Your task to perform on an android device: Open wifi settings Image 0: 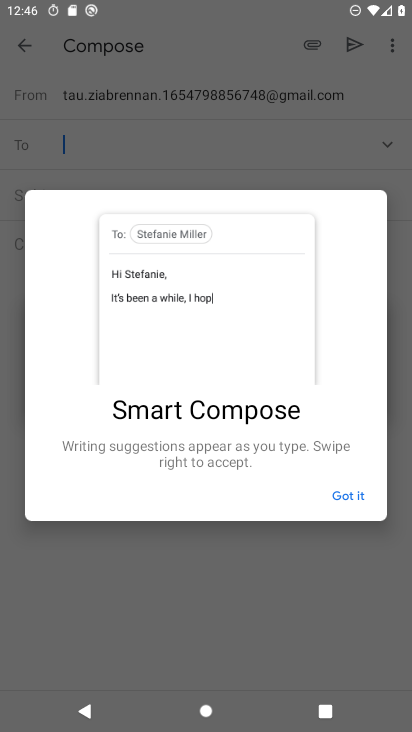
Step 0: press home button
Your task to perform on an android device: Open wifi settings Image 1: 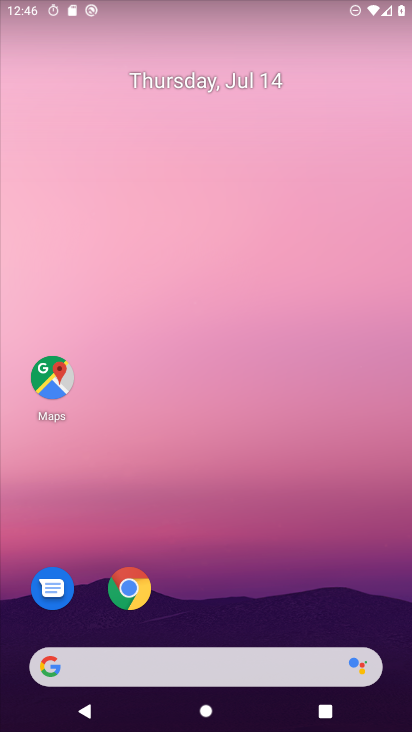
Step 1: drag from (178, 673) to (237, 96)
Your task to perform on an android device: Open wifi settings Image 2: 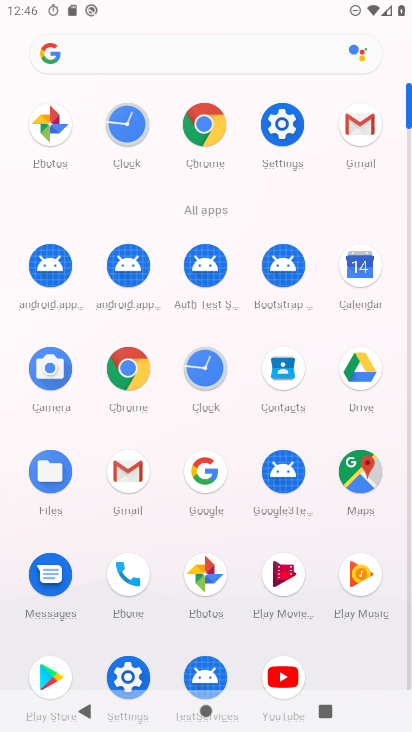
Step 2: click (273, 122)
Your task to perform on an android device: Open wifi settings Image 3: 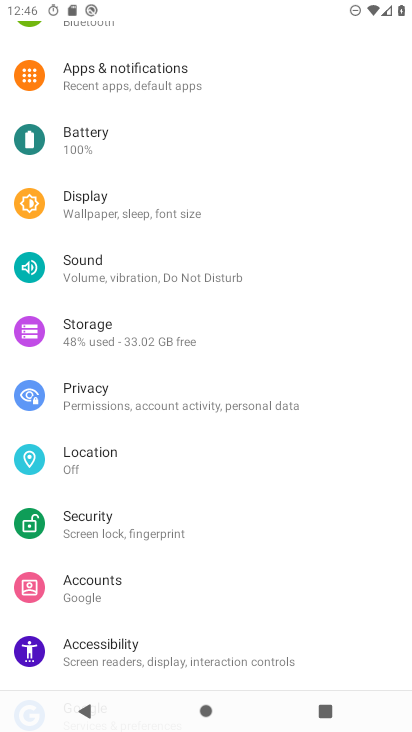
Step 3: drag from (340, 60) to (349, 635)
Your task to perform on an android device: Open wifi settings Image 4: 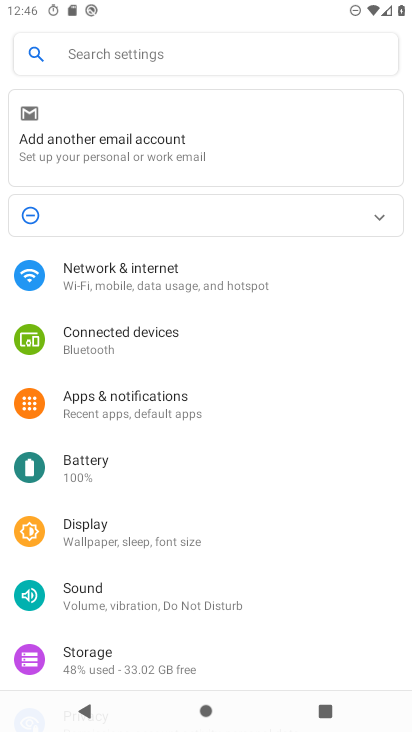
Step 4: click (155, 271)
Your task to perform on an android device: Open wifi settings Image 5: 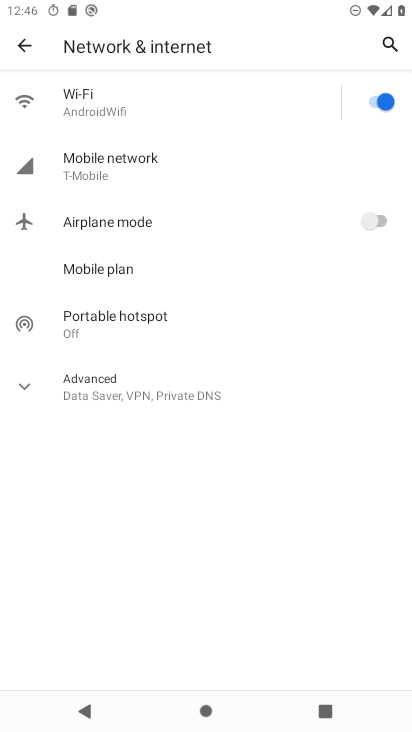
Step 5: click (112, 111)
Your task to perform on an android device: Open wifi settings Image 6: 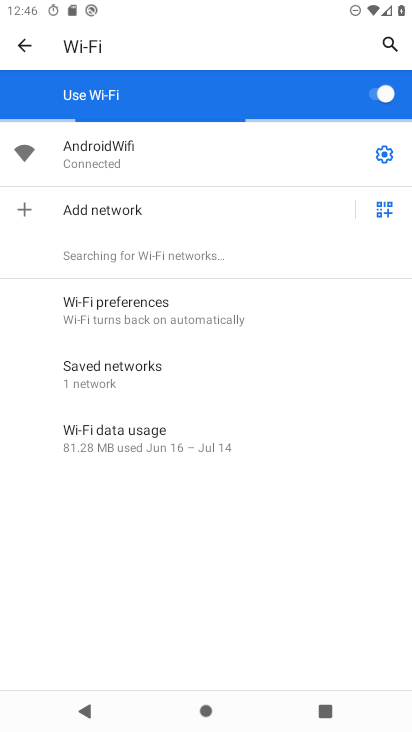
Step 6: task complete